Your task to perform on an android device: Do I have any events today? Image 0: 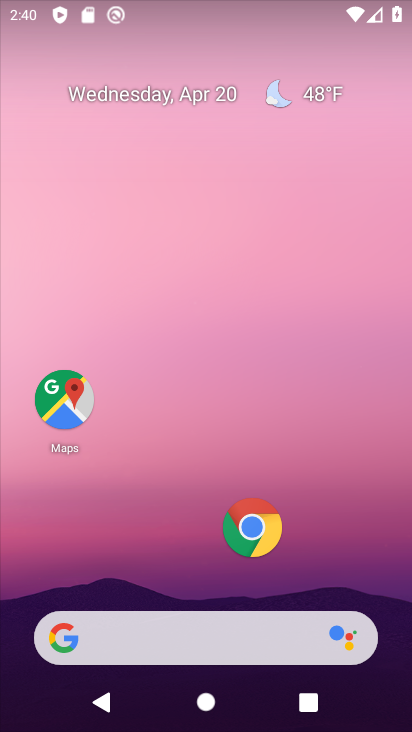
Step 0: click (168, 93)
Your task to perform on an android device: Do I have any events today? Image 1: 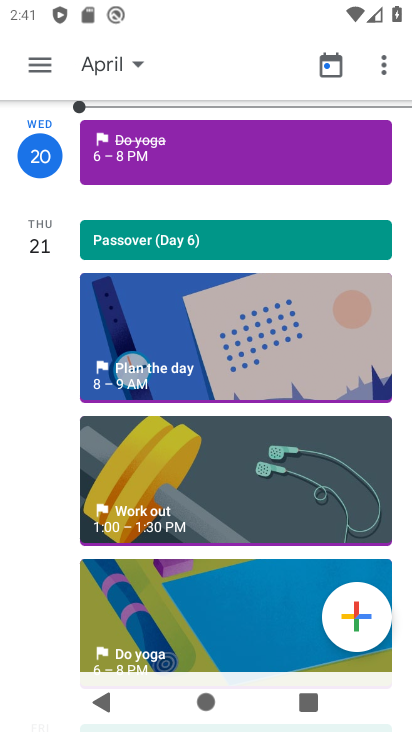
Step 1: click (140, 173)
Your task to perform on an android device: Do I have any events today? Image 2: 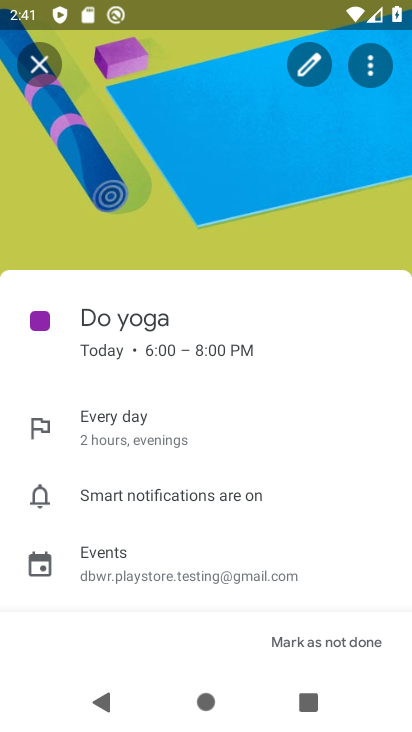
Step 2: task complete